Your task to perform on an android device: Turn off the flashlight Image 0: 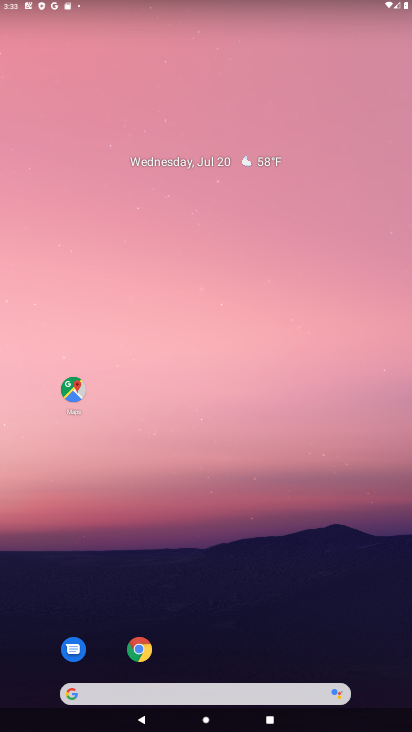
Step 0: drag from (232, 728) to (235, 114)
Your task to perform on an android device: Turn off the flashlight Image 1: 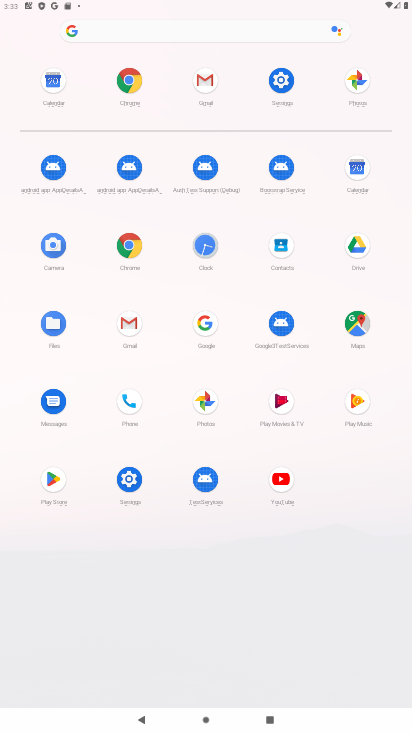
Step 1: click (283, 76)
Your task to perform on an android device: Turn off the flashlight Image 2: 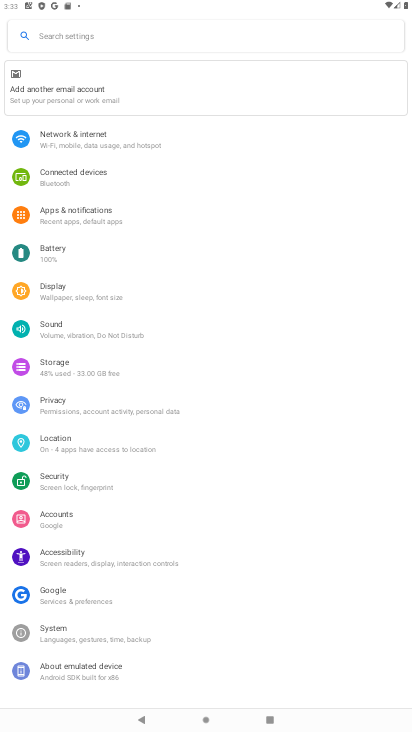
Step 2: task complete